Your task to perform on an android device: delete the emails in spam in the gmail app Image 0: 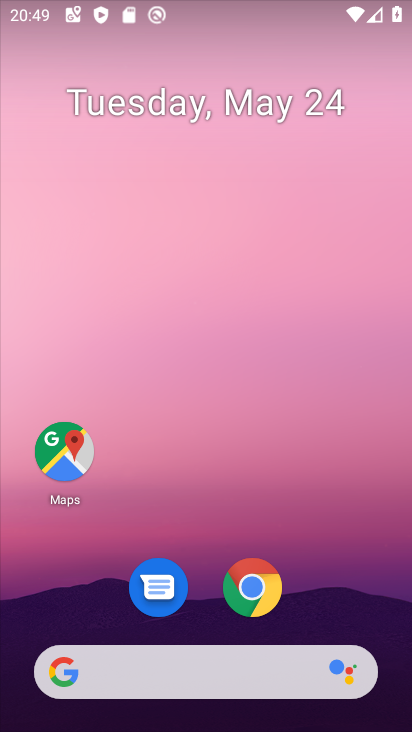
Step 0: drag from (309, 555) to (248, 56)
Your task to perform on an android device: delete the emails in spam in the gmail app Image 1: 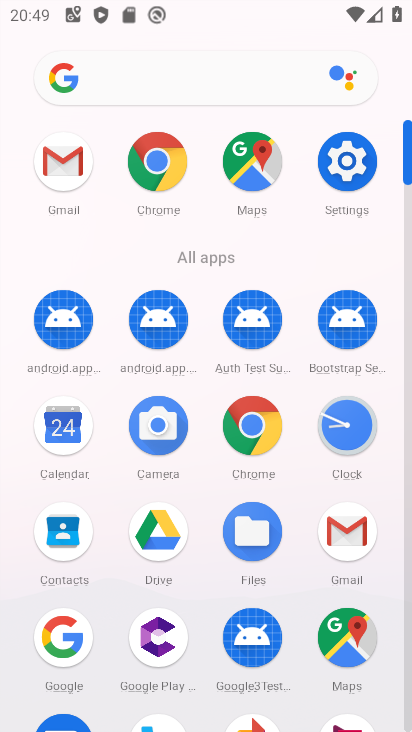
Step 1: drag from (10, 524) to (7, 200)
Your task to perform on an android device: delete the emails in spam in the gmail app Image 2: 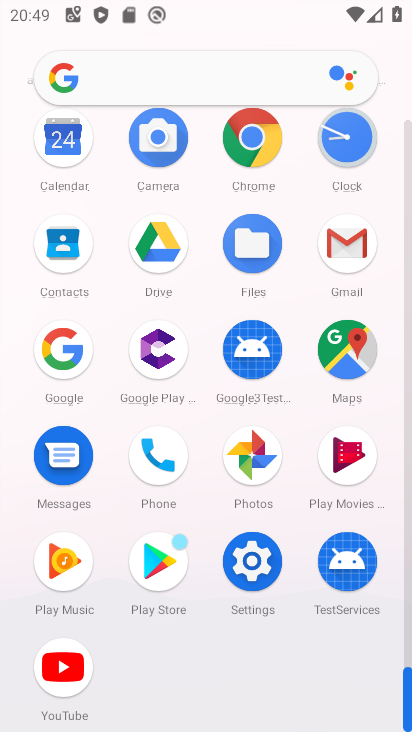
Step 2: click (347, 236)
Your task to perform on an android device: delete the emails in spam in the gmail app Image 3: 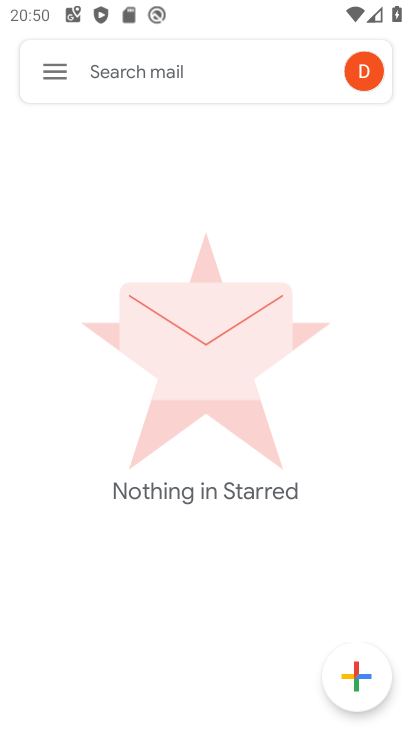
Step 3: click (67, 66)
Your task to perform on an android device: delete the emails in spam in the gmail app Image 4: 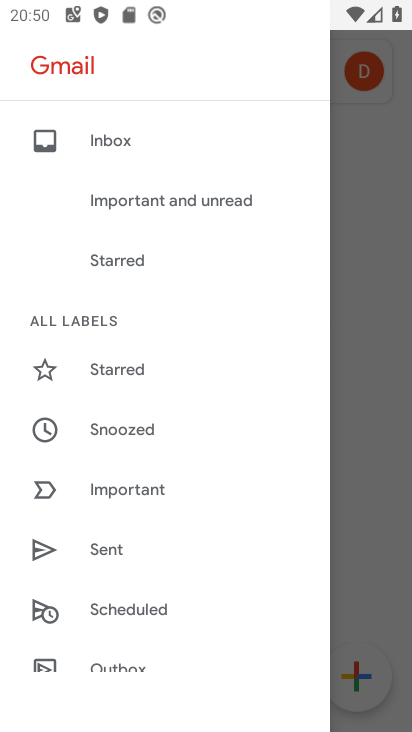
Step 4: drag from (208, 231) to (211, 575)
Your task to perform on an android device: delete the emails in spam in the gmail app Image 5: 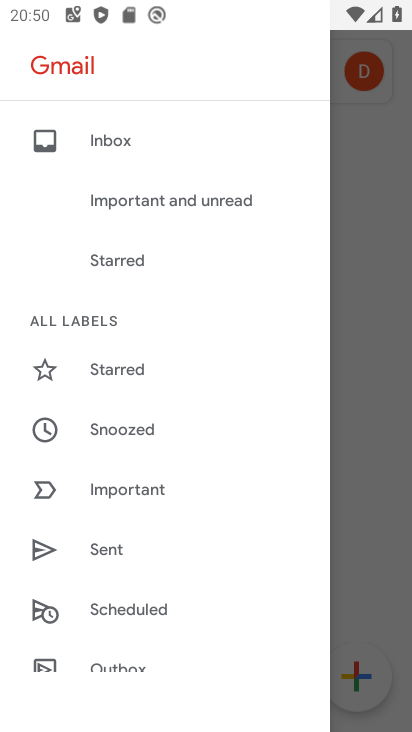
Step 5: drag from (161, 559) to (180, 232)
Your task to perform on an android device: delete the emails in spam in the gmail app Image 6: 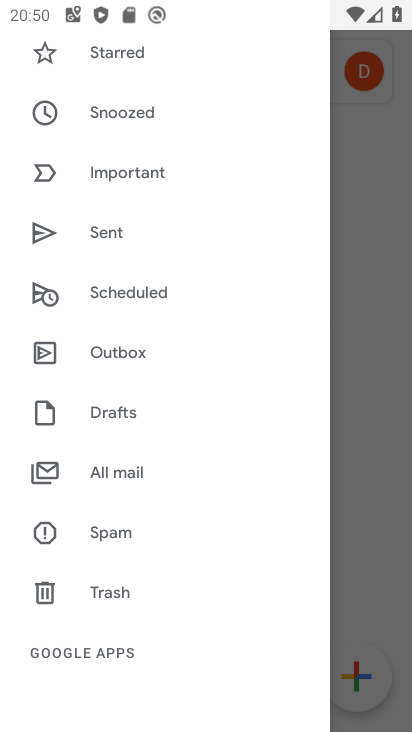
Step 6: click (133, 470)
Your task to perform on an android device: delete the emails in spam in the gmail app Image 7: 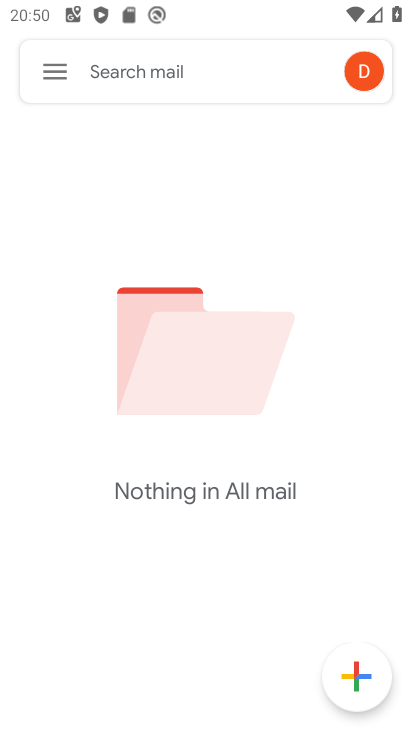
Step 7: click (60, 57)
Your task to perform on an android device: delete the emails in spam in the gmail app Image 8: 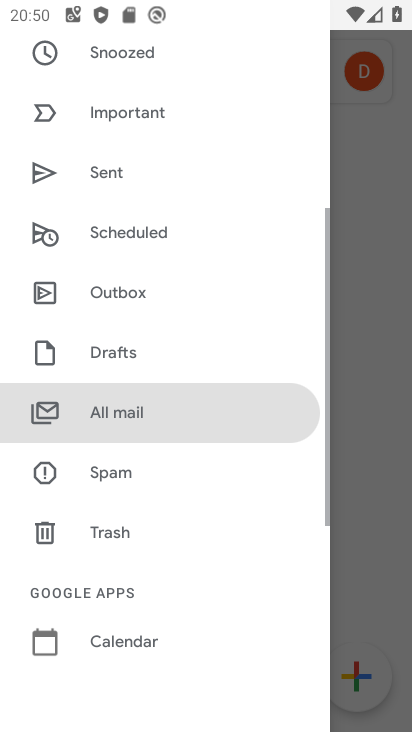
Step 8: drag from (192, 155) to (226, 625)
Your task to perform on an android device: delete the emails in spam in the gmail app Image 9: 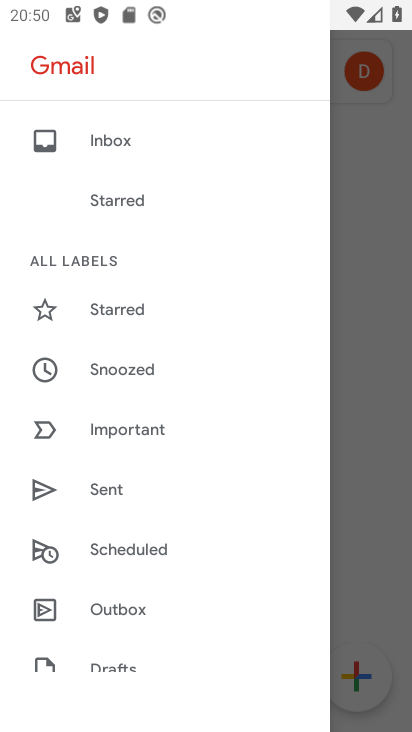
Step 9: click (151, 137)
Your task to perform on an android device: delete the emails in spam in the gmail app Image 10: 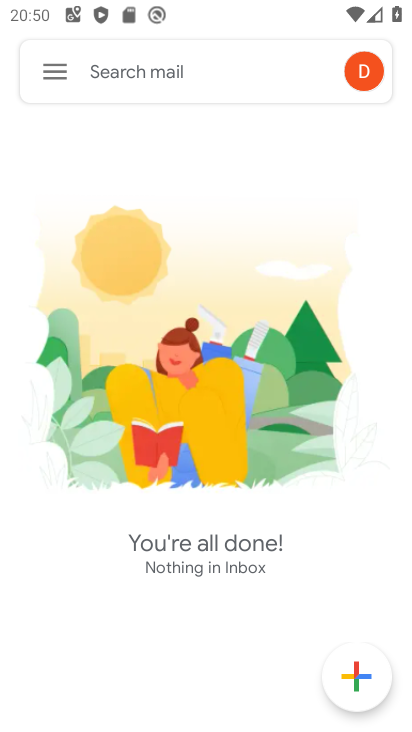
Step 10: task complete